Your task to perform on an android device: turn pop-ups off in chrome Image 0: 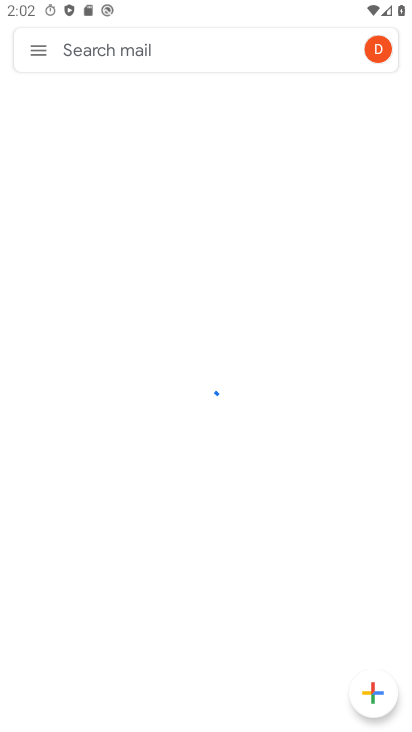
Step 0: press home button
Your task to perform on an android device: turn pop-ups off in chrome Image 1: 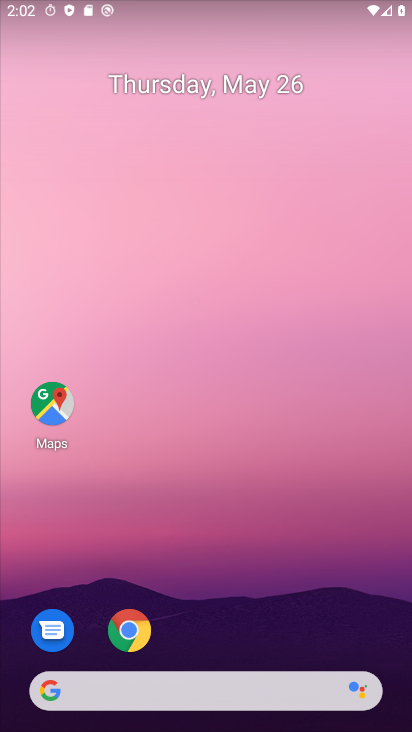
Step 1: click (130, 620)
Your task to perform on an android device: turn pop-ups off in chrome Image 2: 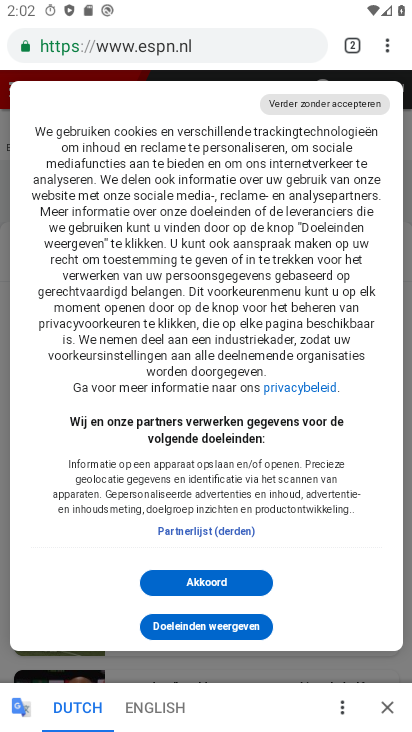
Step 2: click (390, 37)
Your task to perform on an android device: turn pop-ups off in chrome Image 3: 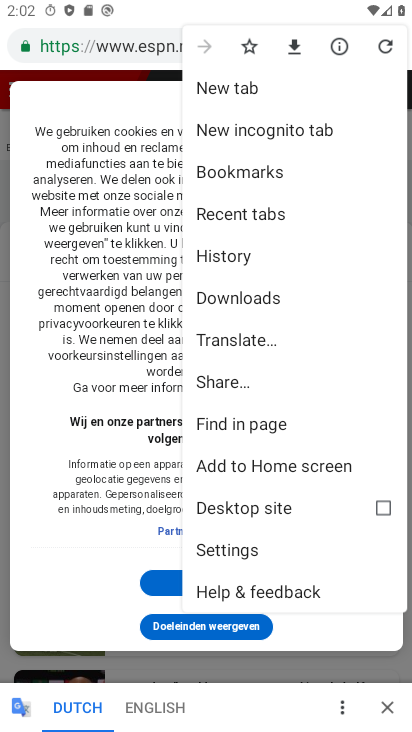
Step 3: click (243, 559)
Your task to perform on an android device: turn pop-ups off in chrome Image 4: 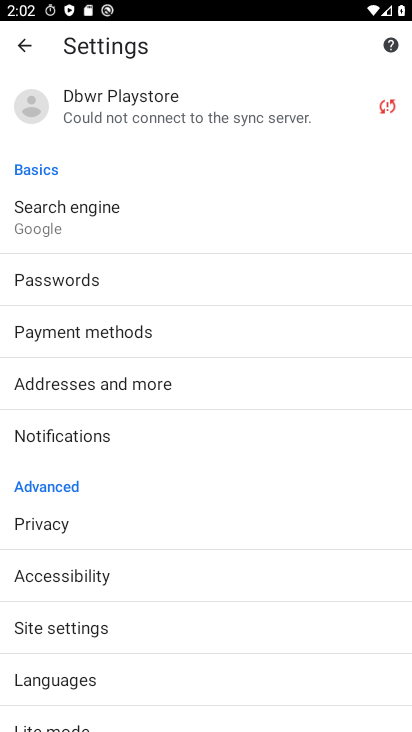
Step 4: click (39, 628)
Your task to perform on an android device: turn pop-ups off in chrome Image 5: 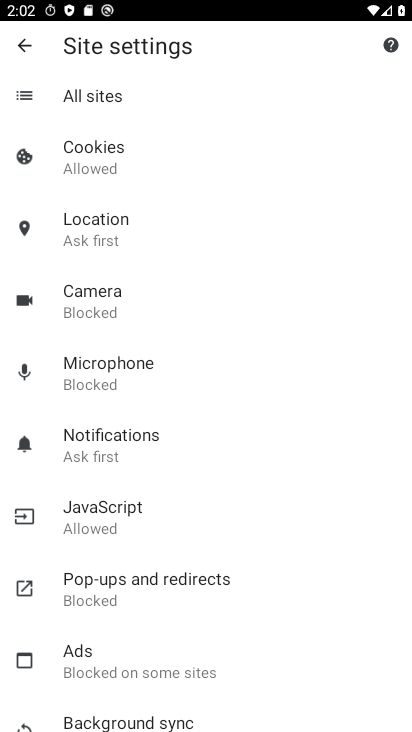
Step 5: click (51, 577)
Your task to perform on an android device: turn pop-ups off in chrome Image 6: 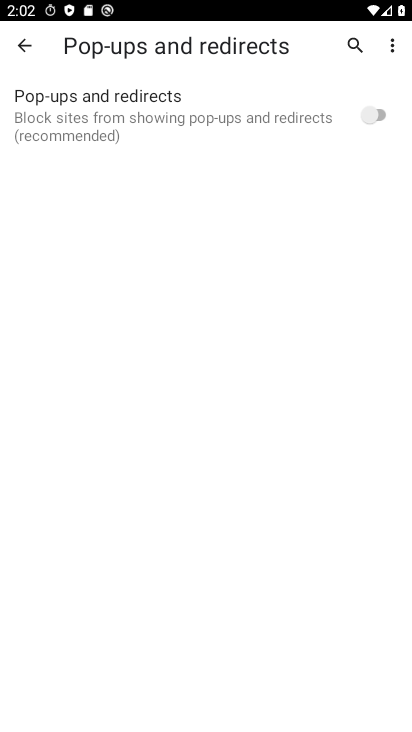
Step 6: task complete